Your task to perform on an android device: Open location settings Image 0: 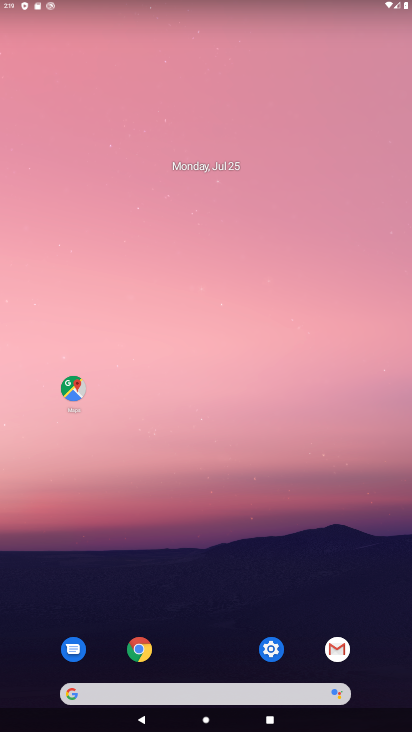
Step 0: click (258, 656)
Your task to perform on an android device: Open location settings Image 1: 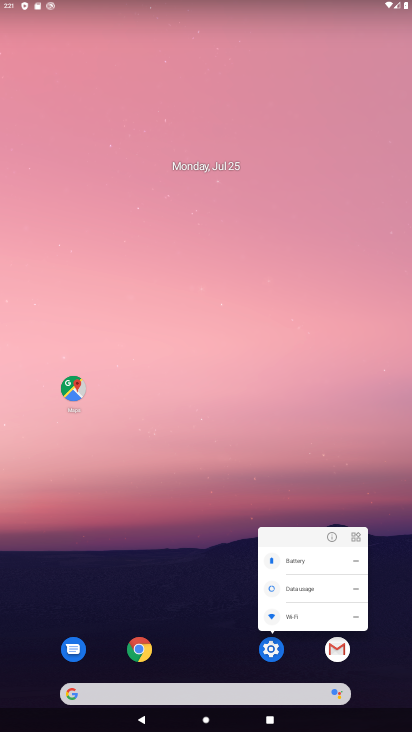
Step 1: click (277, 650)
Your task to perform on an android device: Open location settings Image 2: 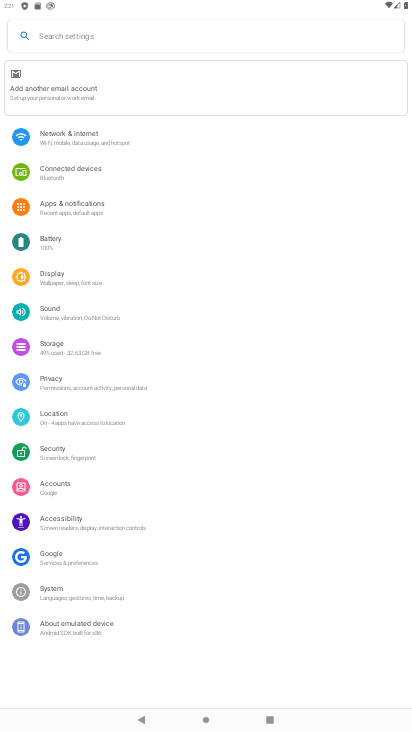
Step 2: click (66, 420)
Your task to perform on an android device: Open location settings Image 3: 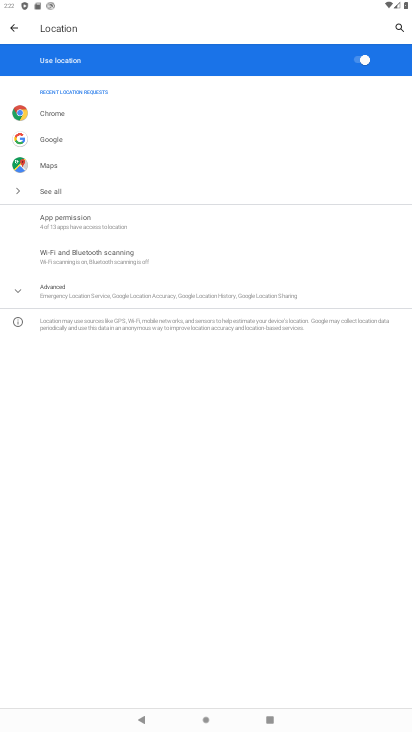
Step 3: task complete